Your task to perform on an android device: find which apps use the phone's location Image 0: 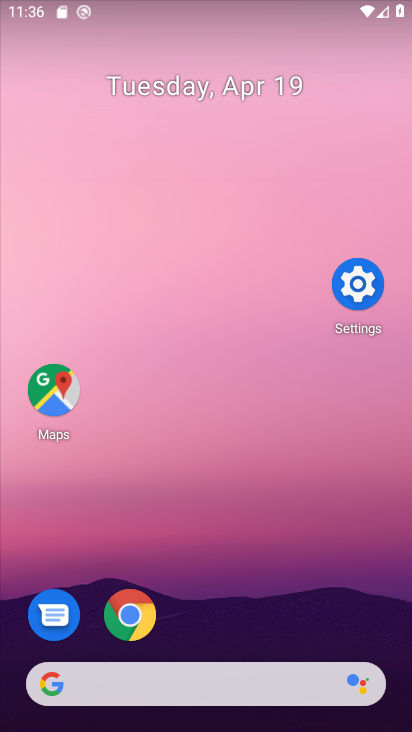
Step 0: drag from (234, 627) to (306, 47)
Your task to perform on an android device: find which apps use the phone's location Image 1: 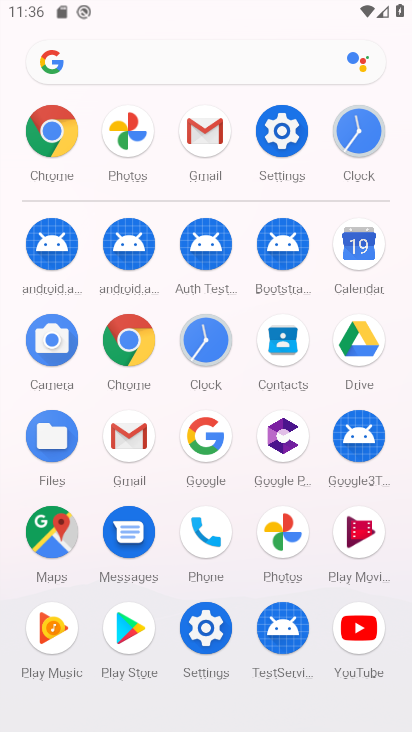
Step 1: click (288, 121)
Your task to perform on an android device: find which apps use the phone's location Image 2: 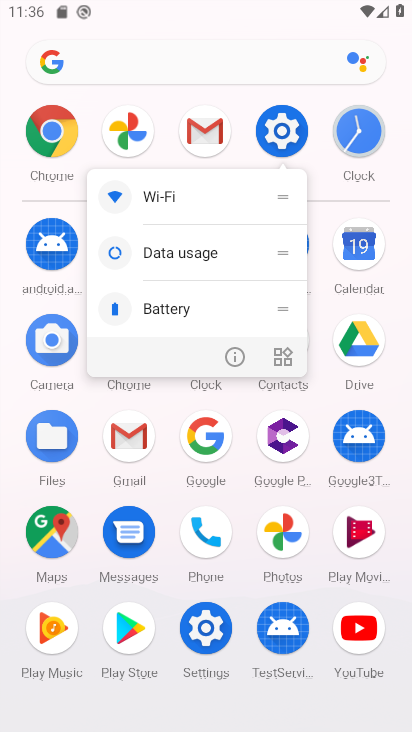
Step 2: click (232, 366)
Your task to perform on an android device: find which apps use the phone's location Image 3: 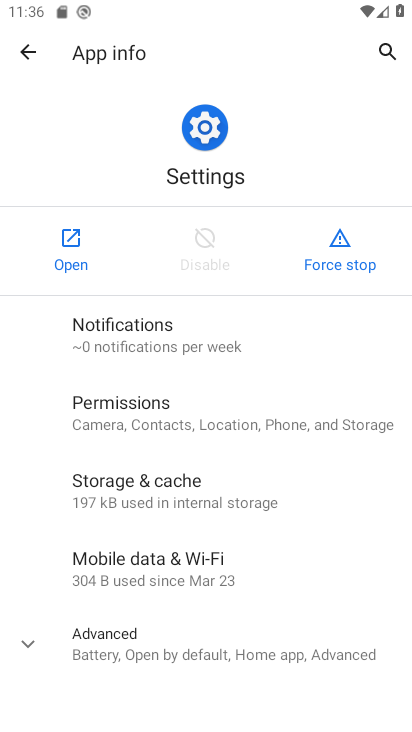
Step 3: click (77, 250)
Your task to perform on an android device: find which apps use the phone's location Image 4: 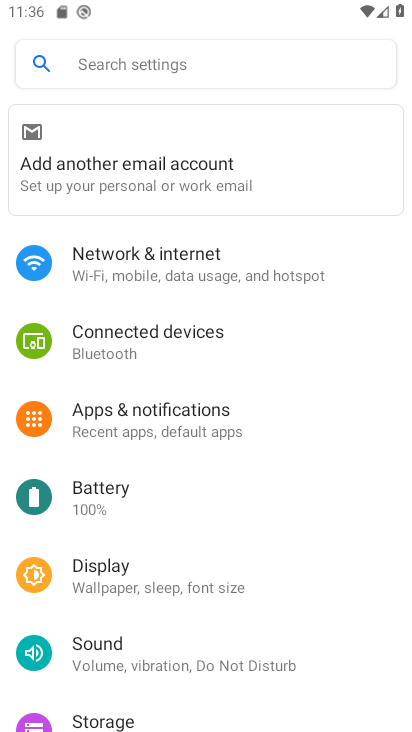
Step 4: drag from (177, 513) to (309, 150)
Your task to perform on an android device: find which apps use the phone's location Image 5: 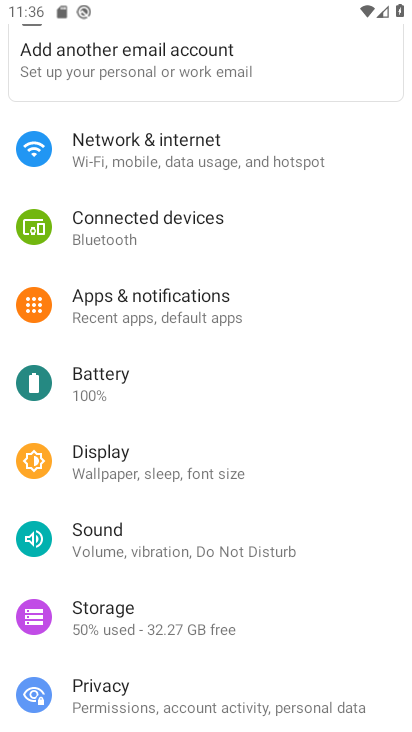
Step 5: drag from (118, 659) to (214, 278)
Your task to perform on an android device: find which apps use the phone's location Image 6: 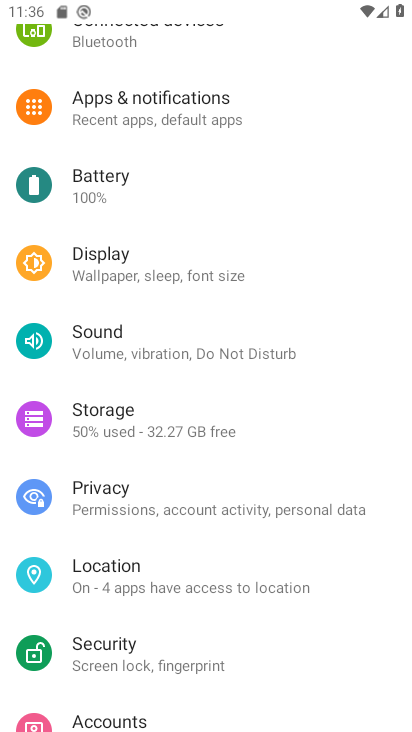
Step 6: click (151, 583)
Your task to perform on an android device: find which apps use the phone's location Image 7: 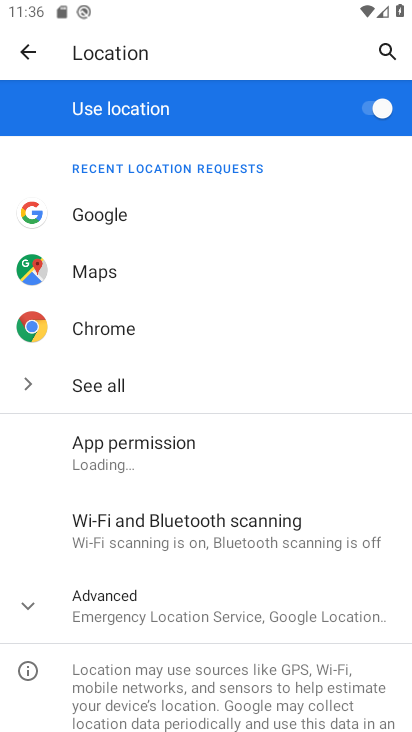
Step 7: click (138, 454)
Your task to perform on an android device: find which apps use the phone's location Image 8: 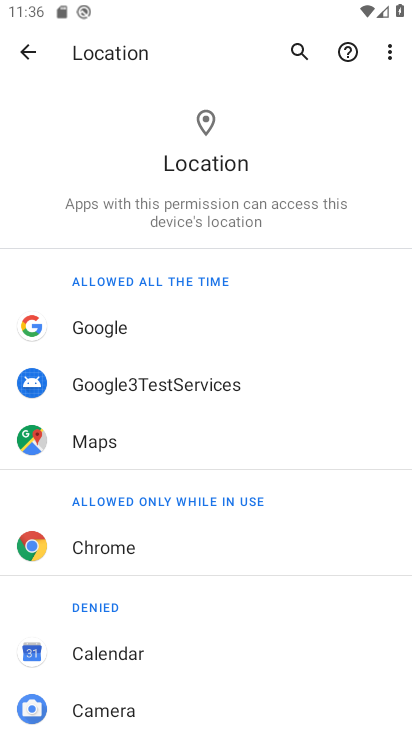
Step 8: task complete